Your task to perform on an android device: Clear the shopping cart on ebay. Add "amazon basics triple a" to the cart on ebay Image 0: 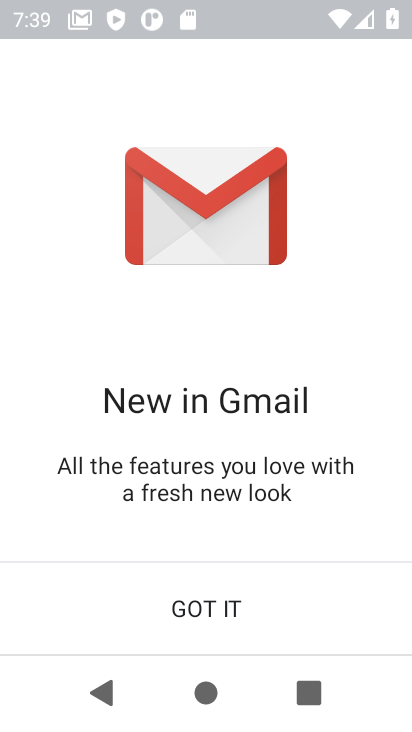
Step 0: press home button
Your task to perform on an android device: Clear the shopping cart on ebay. Add "amazon basics triple a" to the cart on ebay Image 1: 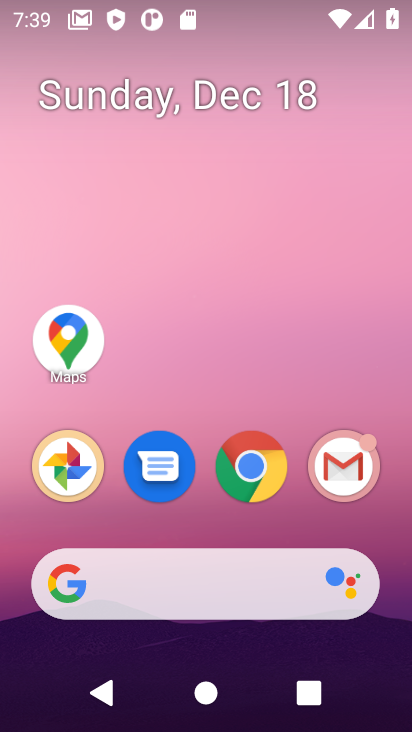
Step 1: click (251, 471)
Your task to perform on an android device: Clear the shopping cart on ebay. Add "amazon basics triple a" to the cart on ebay Image 2: 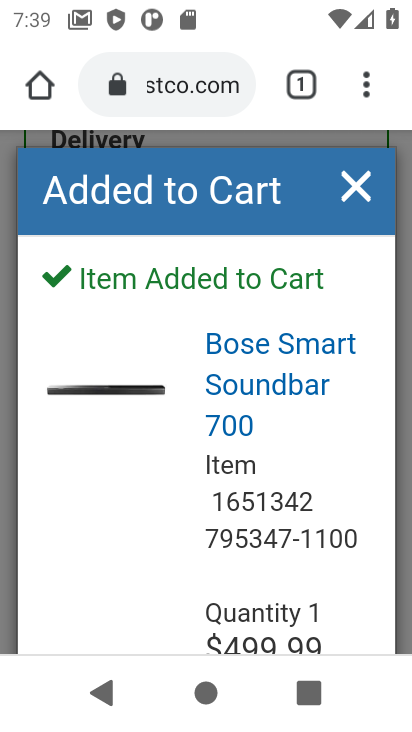
Step 2: click (204, 83)
Your task to perform on an android device: Clear the shopping cart on ebay. Add "amazon basics triple a" to the cart on ebay Image 3: 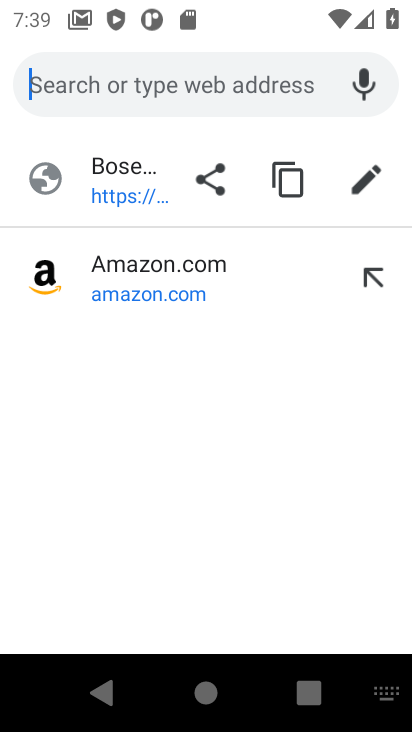
Step 3: type "EBAY"
Your task to perform on an android device: Clear the shopping cart on ebay. Add "amazon basics triple a" to the cart on ebay Image 4: 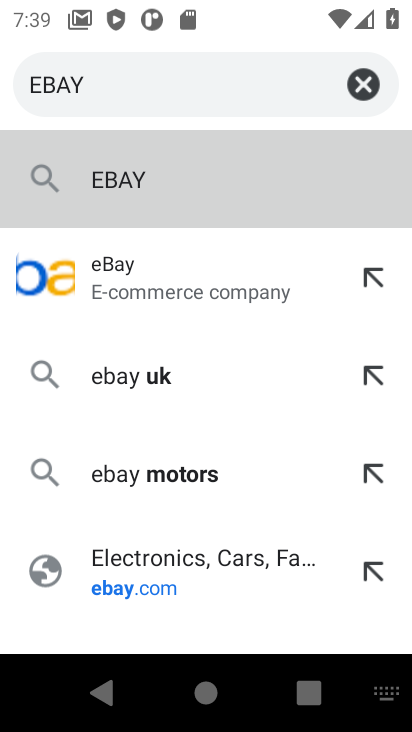
Step 4: click (145, 286)
Your task to perform on an android device: Clear the shopping cart on ebay. Add "amazon basics triple a" to the cart on ebay Image 5: 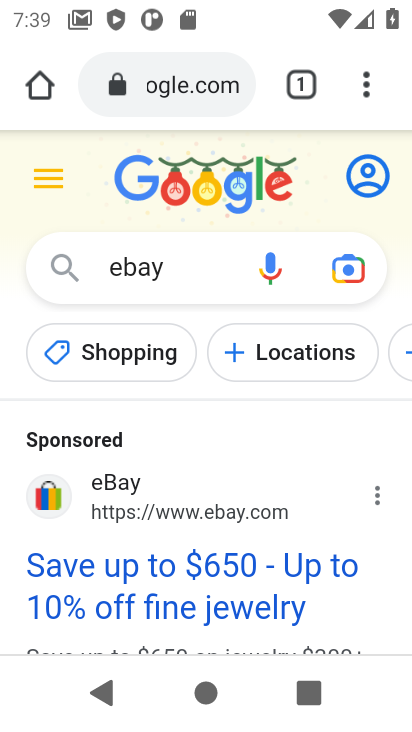
Step 5: click (273, 568)
Your task to perform on an android device: Clear the shopping cart on ebay. Add "amazon basics triple a" to the cart on ebay Image 6: 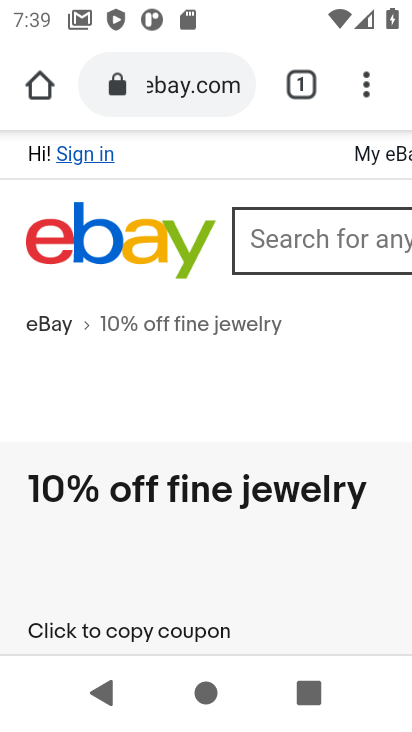
Step 6: drag from (277, 539) to (245, 212)
Your task to perform on an android device: Clear the shopping cart on ebay. Add "amazon basics triple a" to the cart on ebay Image 7: 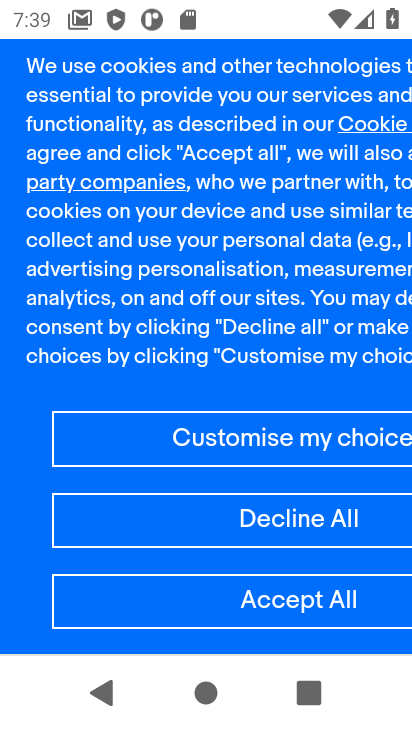
Step 7: click (284, 593)
Your task to perform on an android device: Clear the shopping cart on ebay. Add "amazon basics triple a" to the cart on ebay Image 8: 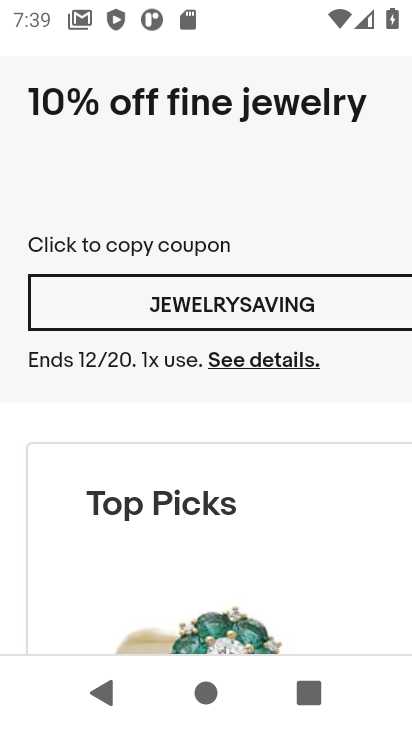
Step 8: drag from (263, 245) to (0, 250)
Your task to perform on an android device: Clear the shopping cart on ebay. Add "amazon basics triple a" to the cart on ebay Image 9: 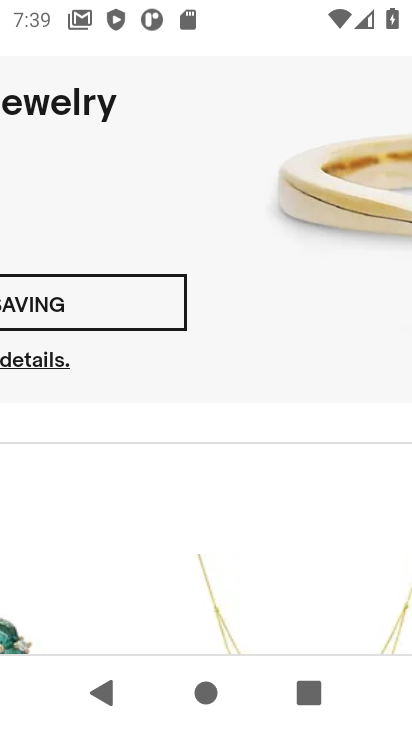
Step 9: drag from (294, 416) to (50, 435)
Your task to perform on an android device: Clear the shopping cart on ebay. Add "amazon basics triple a" to the cart on ebay Image 10: 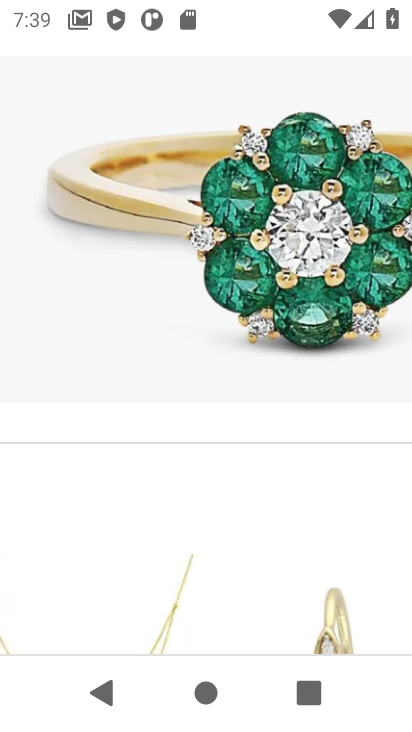
Step 10: drag from (245, 160) to (221, 577)
Your task to perform on an android device: Clear the shopping cart on ebay. Add "amazon basics triple a" to the cart on ebay Image 11: 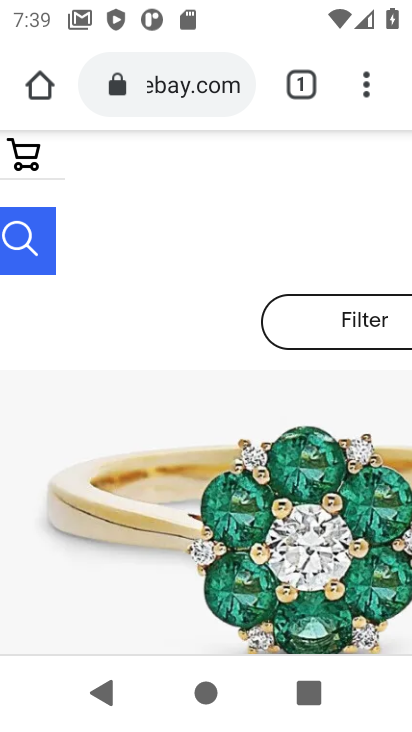
Step 11: click (364, 89)
Your task to perform on an android device: Clear the shopping cart on ebay. Add "amazon basics triple a" to the cart on ebay Image 12: 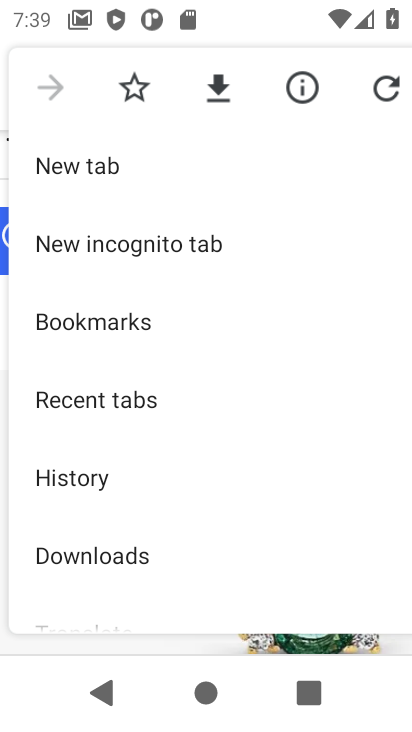
Step 12: drag from (199, 546) to (164, 227)
Your task to perform on an android device: Clear the shopping cart on ebay. Add "amazon basics triple a" to the cart on ebay Image 13: 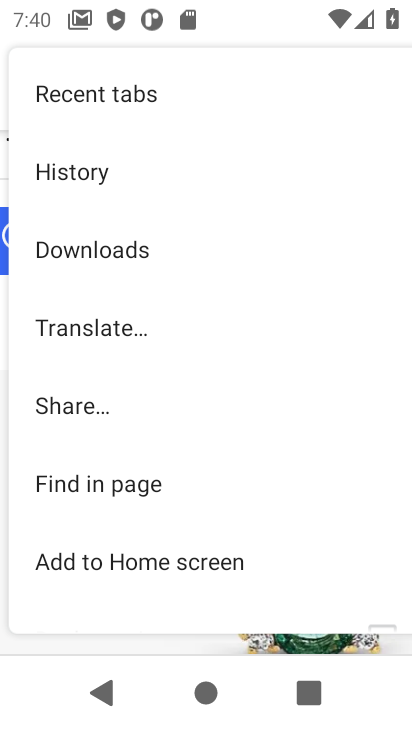
Step 13: drag from (183, 531) to (174, 195)
Your task to perform on an android device: Clear the shopping cart on ebay. Add "amazon basics triple a" to the cart on ebay Image 14: 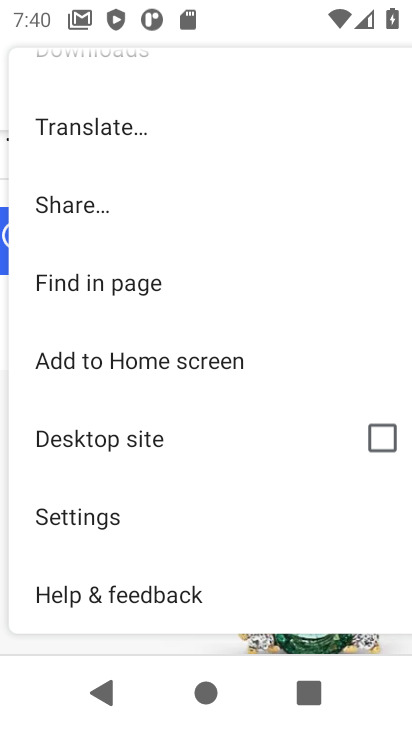
Step 14: click (76, 641)
Your task to perform on an android device: Clear the shopping cart on ebay. Add "amazon basics triple a" to the cart on ebay Image 15: 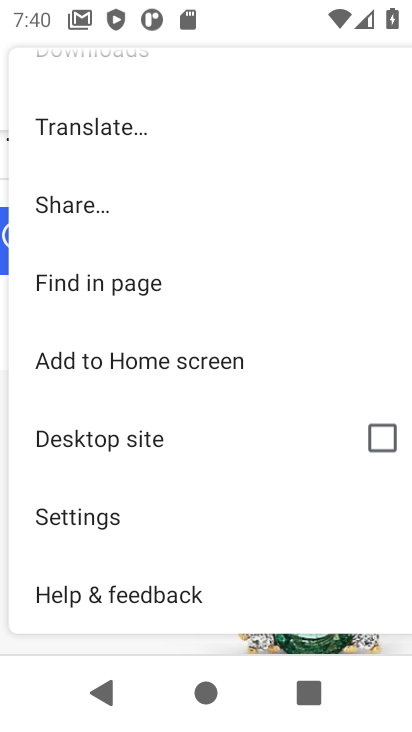
Step 15: click (27, 644)
Your task to perform on an android device: Clear the shopping cart on ebay. Add "amazon basics triple a" to the cart on ebay Image 16: 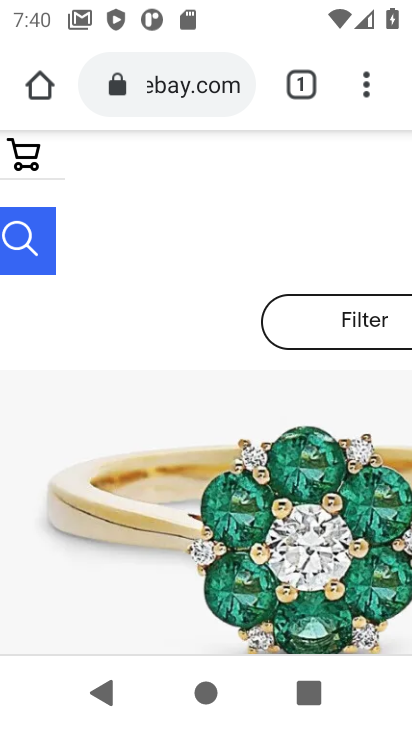
Step 16: click (26, 237)
Your task to perform on an android device: Clear the shopping cart on ebay. Add "amazon basics triple a" to the cart on ebay Image 17: 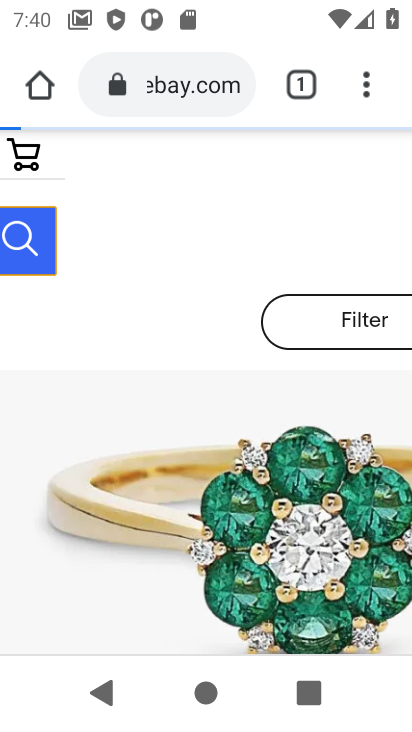
Step 17: drag from (26, 237) to (380, 287)
Your task to perform on an android device: Clear the shopping cart on ebay. Add "amazon basics triple a" to the cart on ebay Image 18: 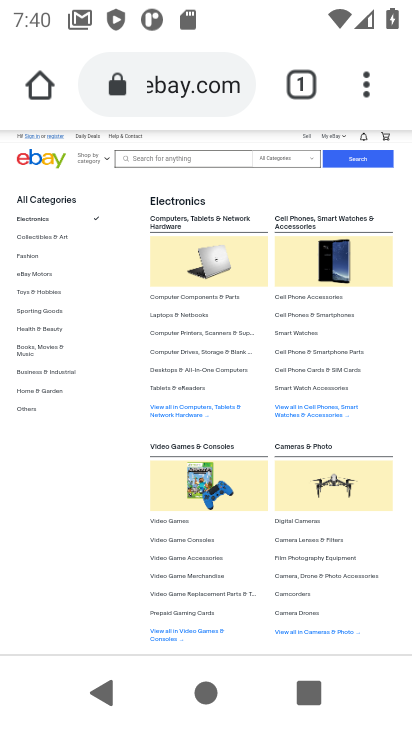
Step 18: click (207, 152)
Your task to perform on an android device: Clear the shopping cart on ebay. Add "amazon basics triple a" to the cart on ebay Image 19: 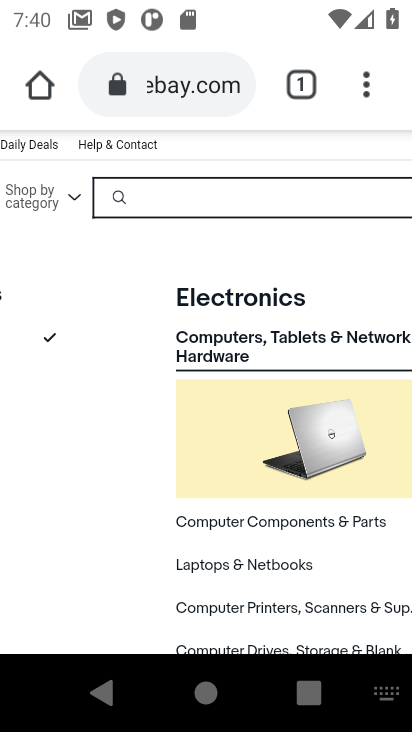
Step 19: type "amazon basics triple a"
Your task to perform on an android device: Clear the shopping cart on ebay. Add "amazon basics triple a" to the cart on ebay Image 20: 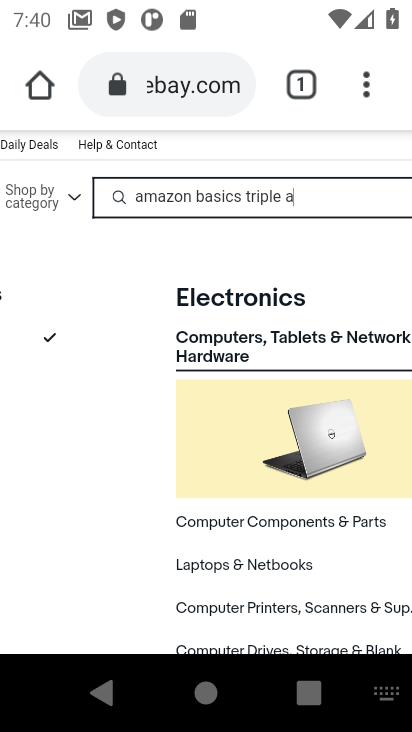
Step 20: drag from (381, 216) to (91, 192)
Your task to perform on an android device: Clear the shopping cart on ebay. Add "amazon basics triple a" to the cart on ebay Image 21: 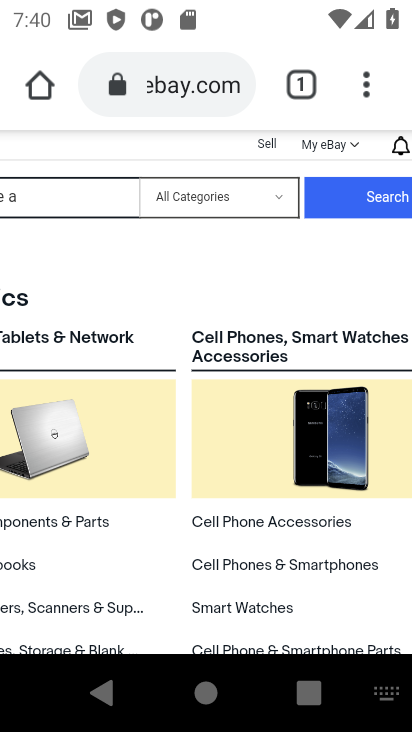
Step 21: click (341, 198)
Your task to perform on an android device: Clear the shopping cart on ebay. Add "amazon basics triple a" to the cart on ebay Image 22: 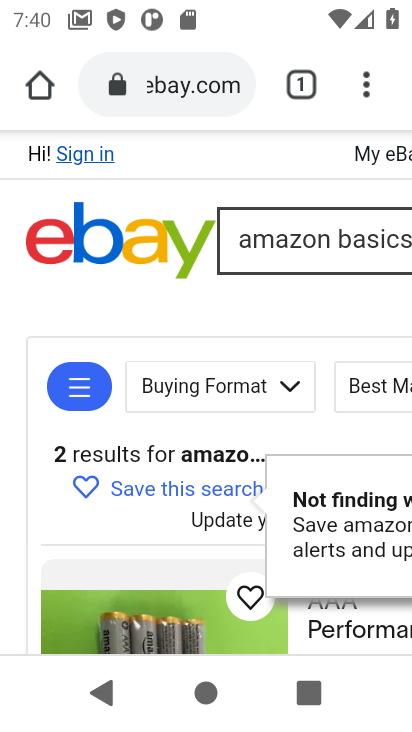
Step 22: drag from (180, 620) to (113, 272)
Your task to perform on an android device: Clear the shopping cart on ebay. Add "amazon basics triple a" to the cart on ebay Image 23: 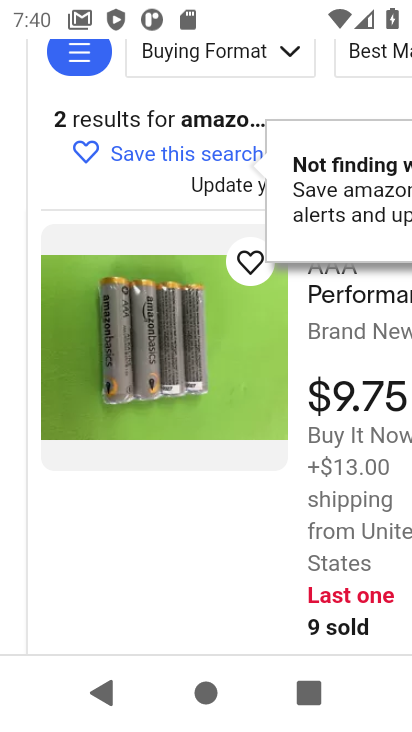
Step 23: click (216, 459)
Your task to perform on an android device: Clear the shopping cart on ebay. Add "amazon basics triple a" to the cart on ebay Image 24: 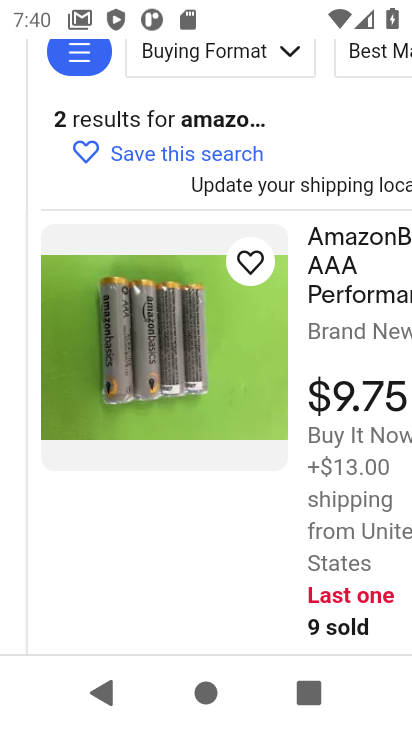
Step 24: click (368, 293)
Your task to perform on an android device: Clear the shopping cart on ebay. Add "amazon basics triple a" to the cart on ebay Image 25: 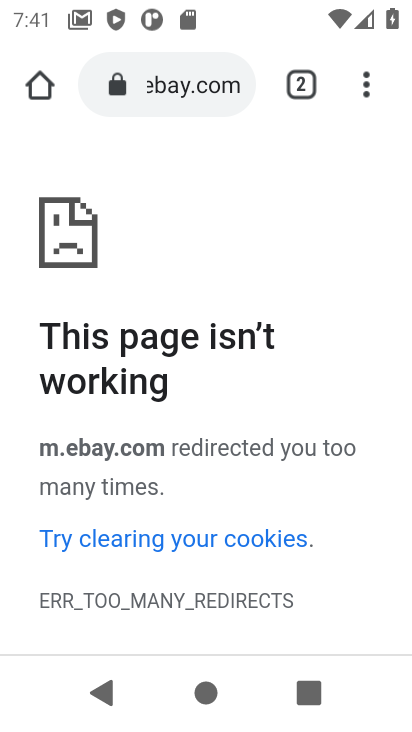
Step 25: task complete